Your task to perform on an android device: Search for pizza restaurants on Maps Image 0: 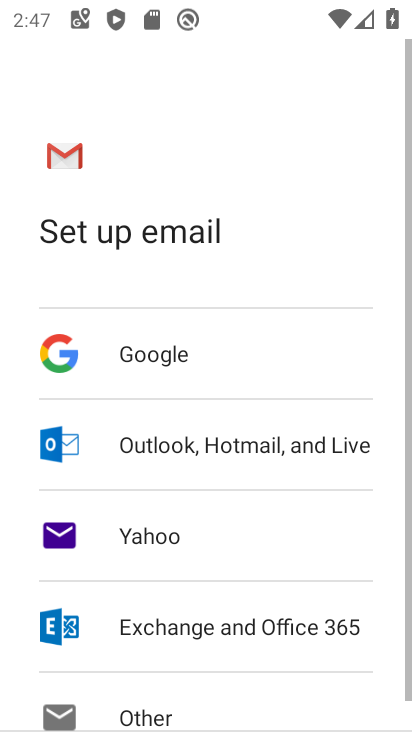
Step 0: press home button
Your task to perform on an android device: Search for pizza restaurants on Maps Image 1: 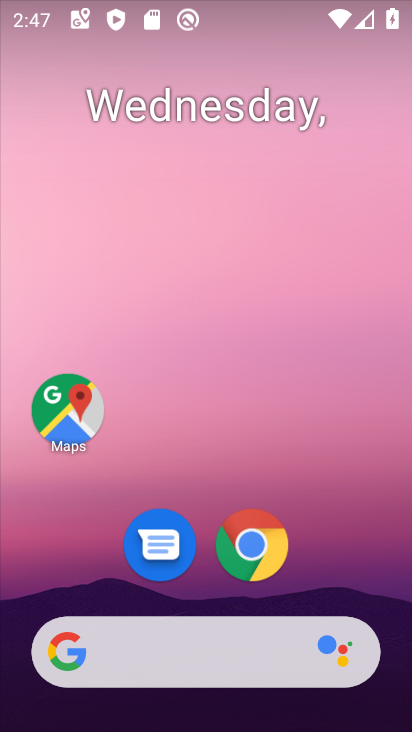
Step 1: click (86, 415)
Your task to perform on an android device: Search for pizza restaurants on Maps Image 2: 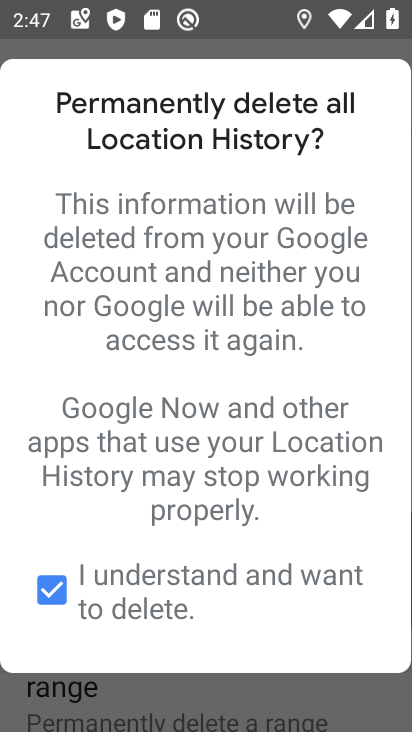
Step 2: press back button
Your task to perform on an android device: Search for pizza restaurants on Maps Image 3: 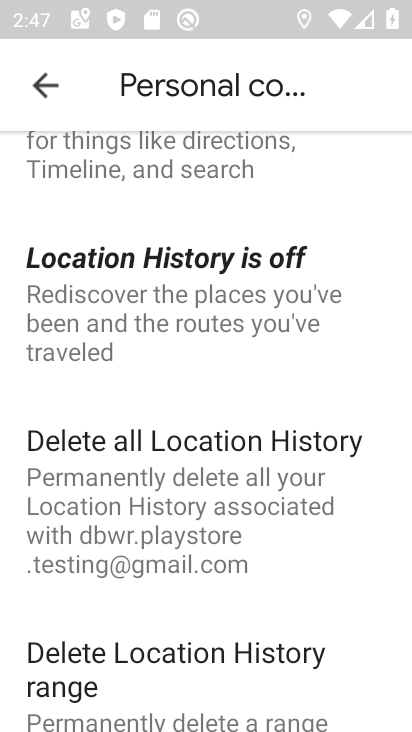
Step 3: click (37, 90)
Your task to perform on an android device: Search for pizza restaurants on Maps Image 4: 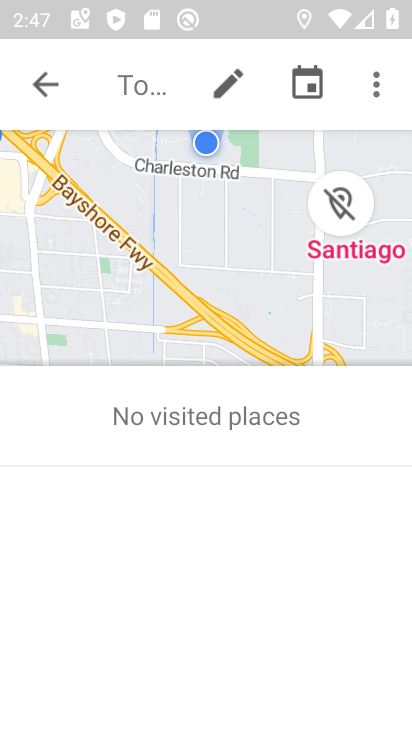
Step 4: click (37, 90)
Your task to perform on an android device: Search for pizza restaurants on Maps Image 5: 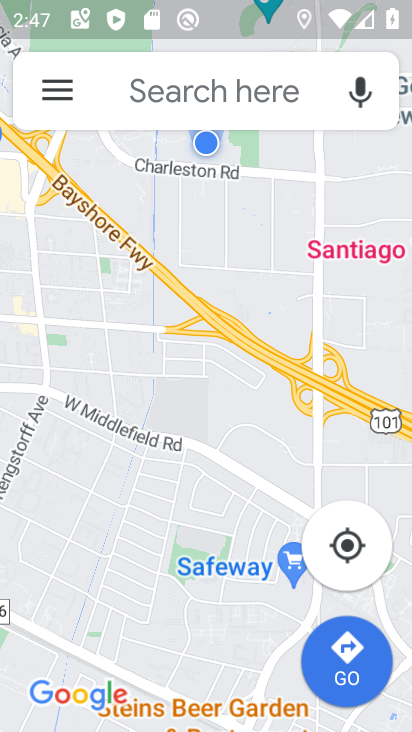
Step 5: click (207, 78)
Your task to perform on an android device: Search for pizza restaurants on Maps Image 6: 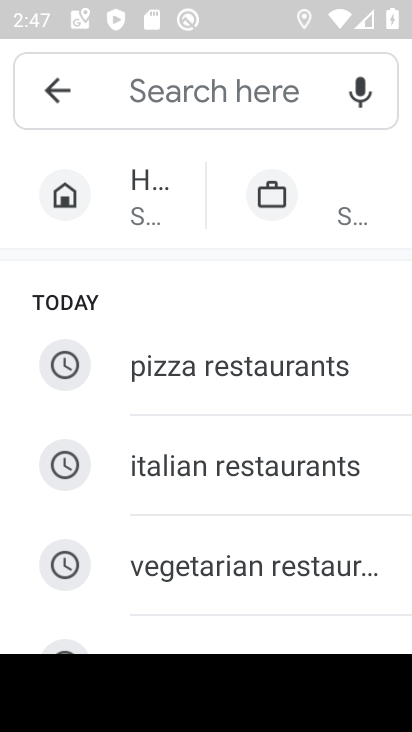
Step 6: click (202, 368)
Your task to perform on an android device: Search for pizza restaurants on Maps Image 7: 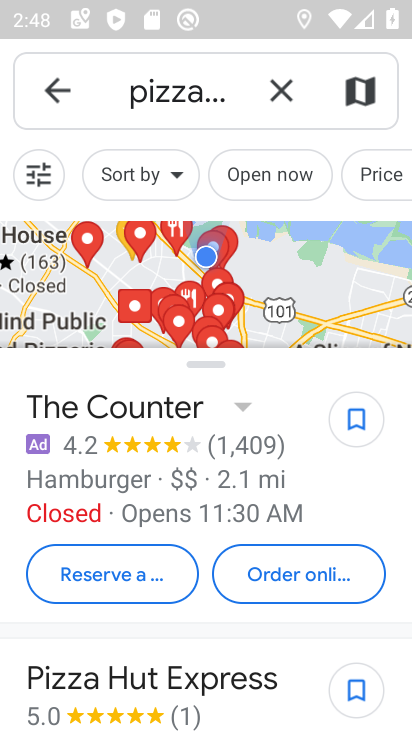
Step 7: task complete